Your task to perform on an android device: Search for "usb-c to usb-b" on amazon.com, select the first entry, add it to the cart, then select checkout. Image 0: 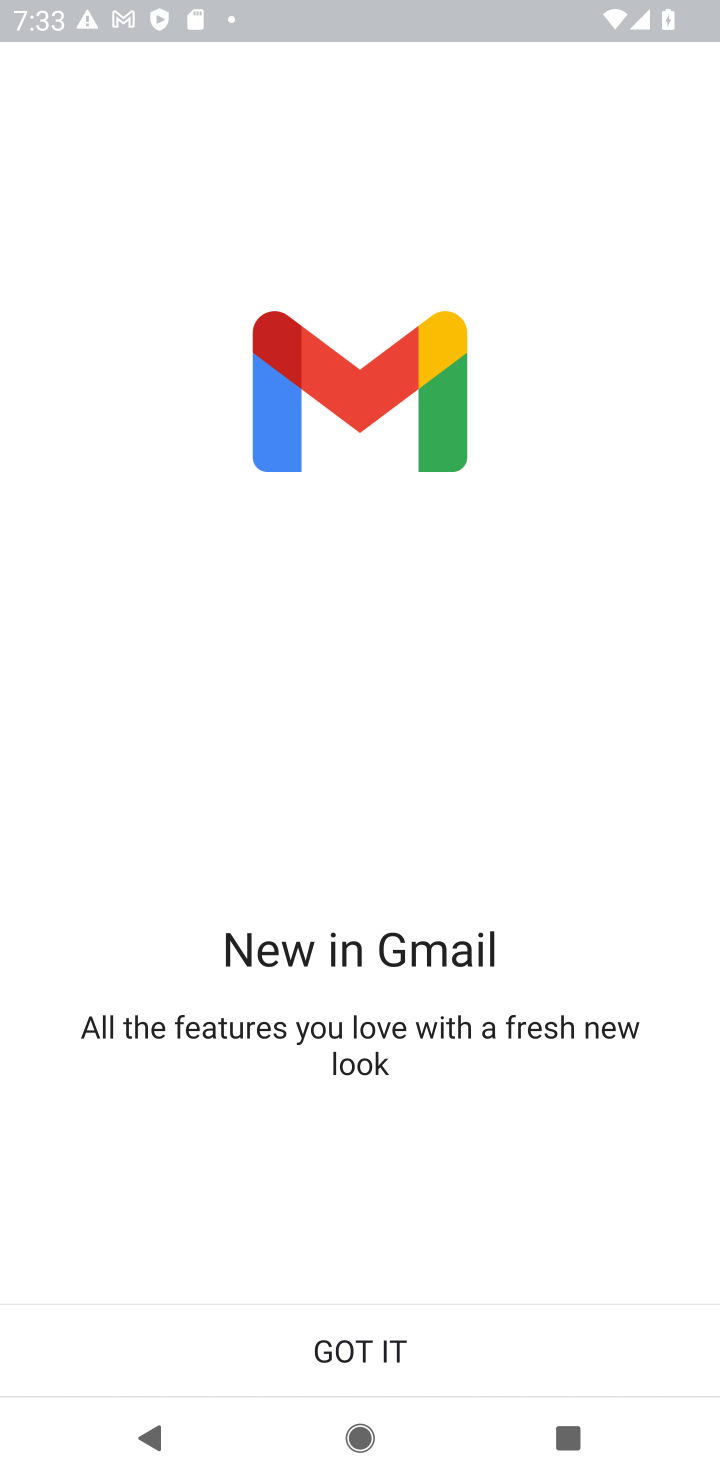
Step 0: press home button
Your task to perform on an android device: Search for "usb-c to usb-b" on amazon.com, select the first entry, add it to the cart, then select checkout. Image 1: 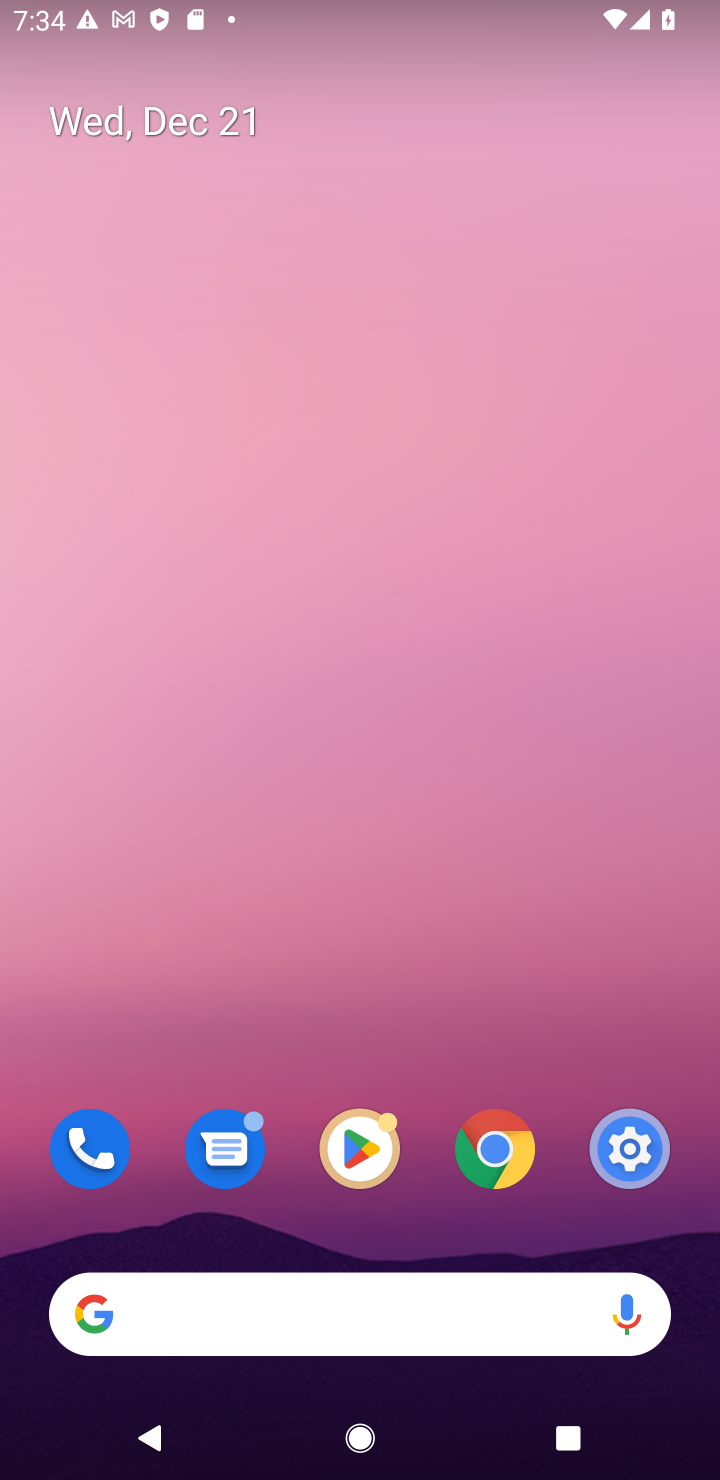
Step 1: click (499, 1155)
Your task to perform on an android device: Search for "usb-c to usb-b" on amazon.com, select the first entry, add it to the cart, then select checkout. Image 2: 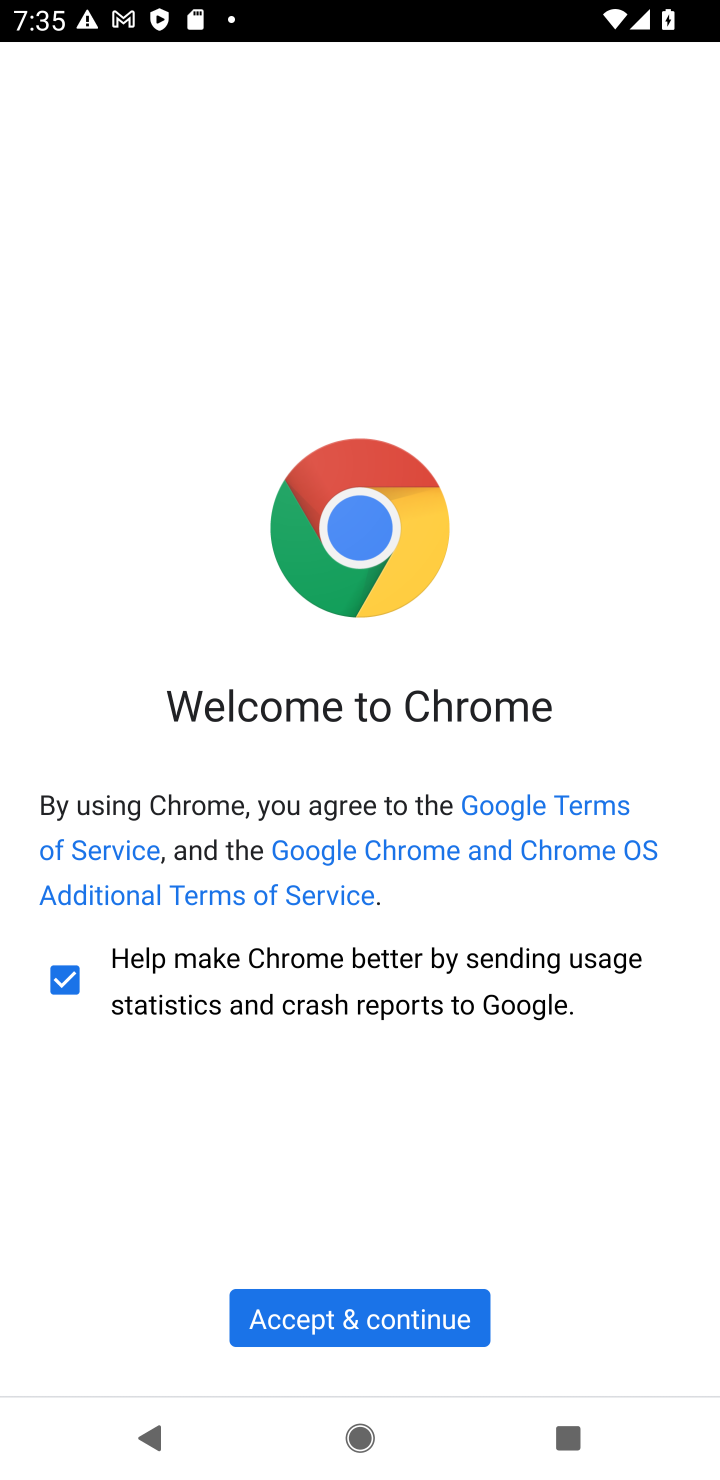
Step 2: click (407, 1324)
Your task to perform on an android device: Search for "usb-c to usb-b" on amazon.com, select the first entry, add it to the cart, then select checkout. Image 3: 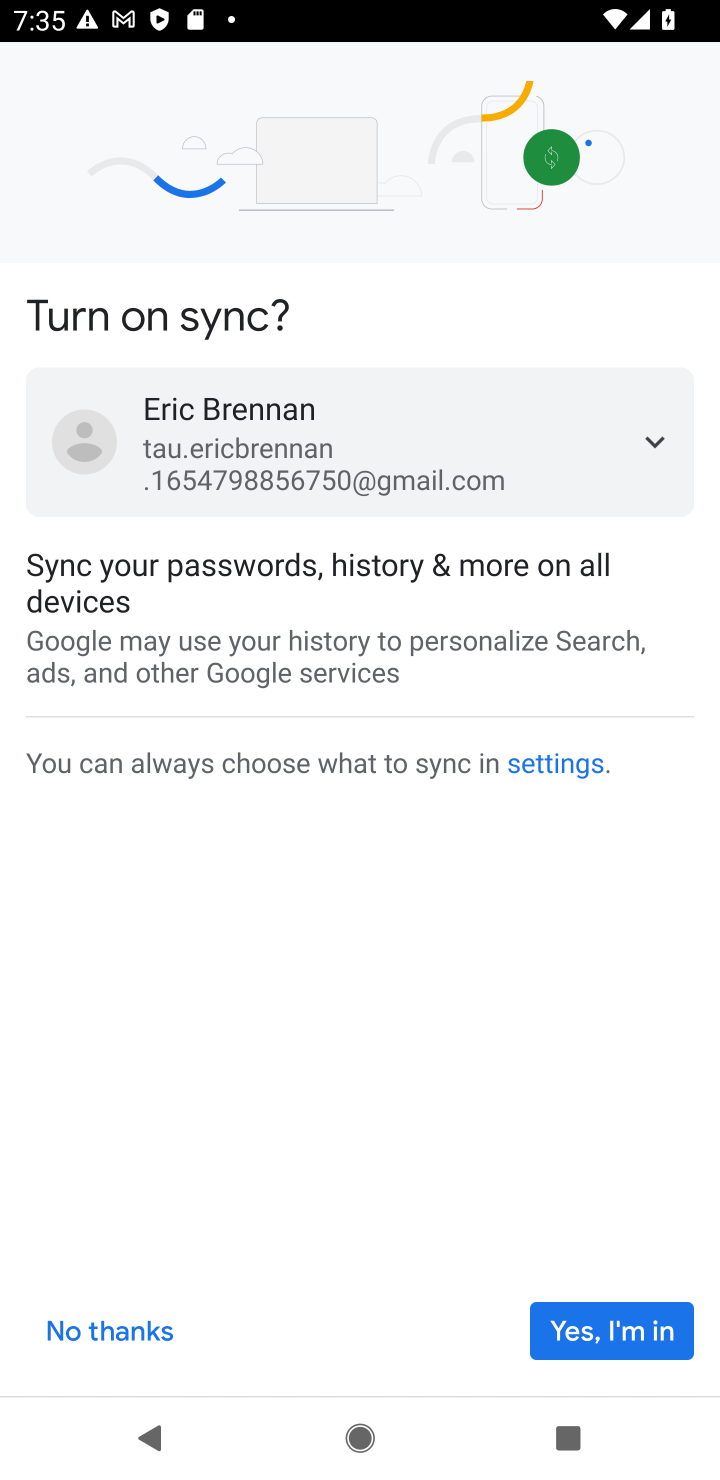
Step 3: click (595, 1337)
Your task to perform on an android device: Search for "usb-c to usb-b" on amazon.com, select the first entry, add it to the cart, then select checkout. Image 4: 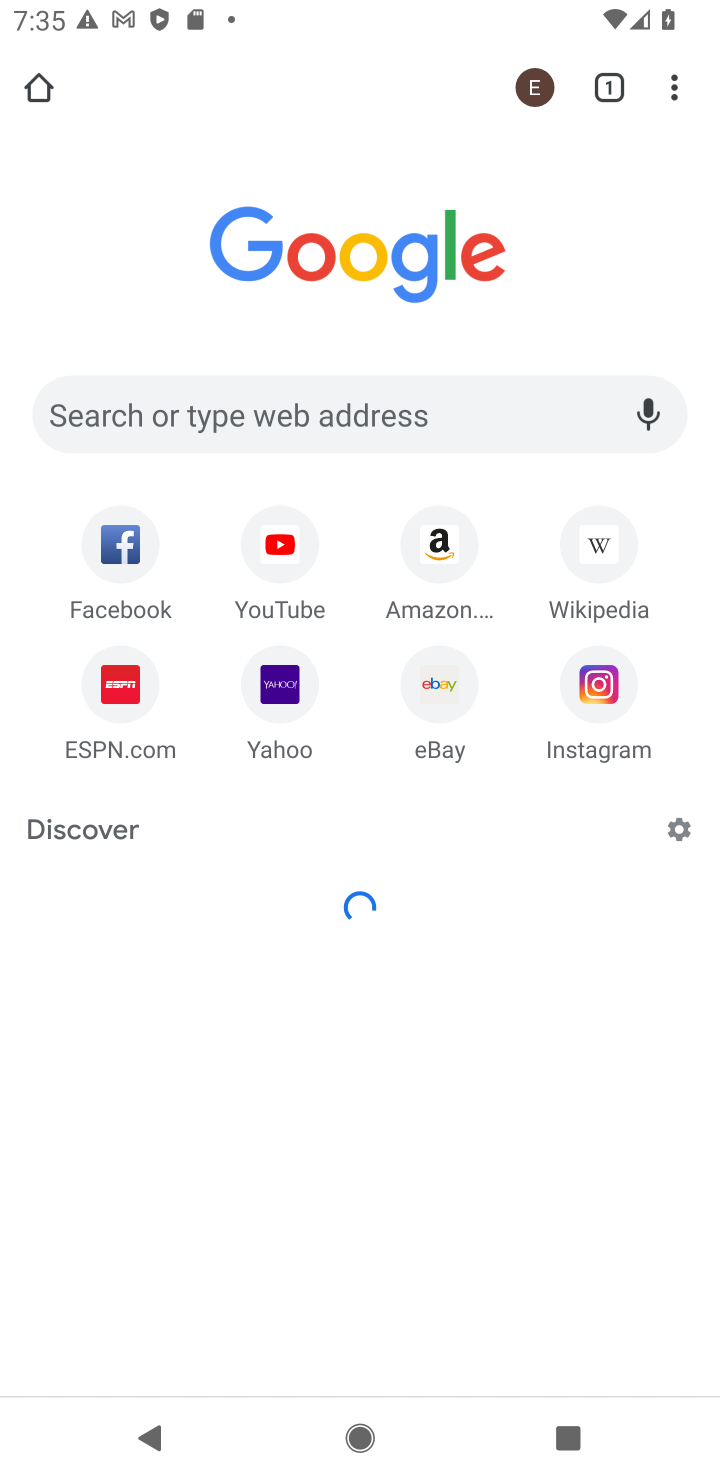
Step 4: click (442, 543)
Your task to perform on an android device: Search for "usb-c to usb-b" on amazon.com, select the first entry, add it to the cart, then select checkout. Image 5: 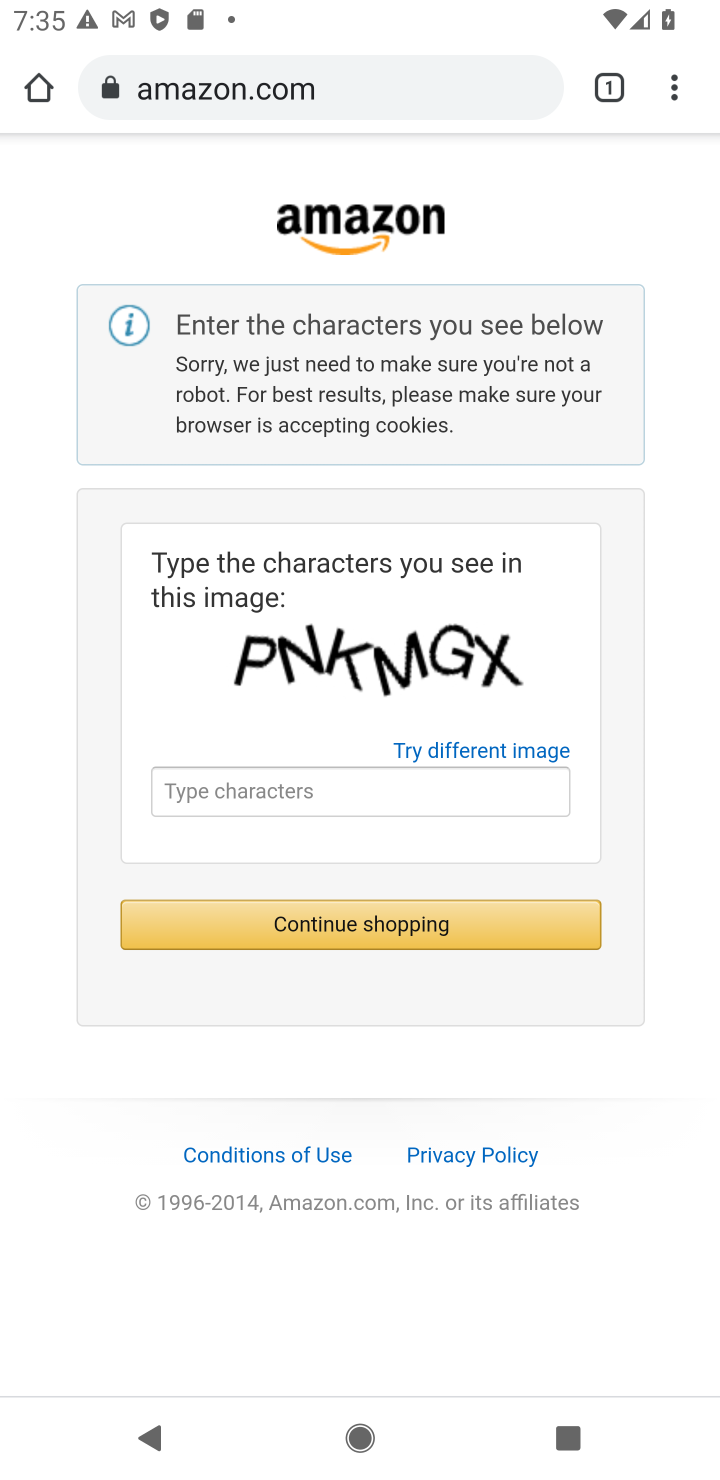
Step 5: click (290, 790)
Your task to perform on an android device: Search for "usb-c to usb-b" on amazon.com, select the first entry, add it to the cart, then select checkout. Image 6: 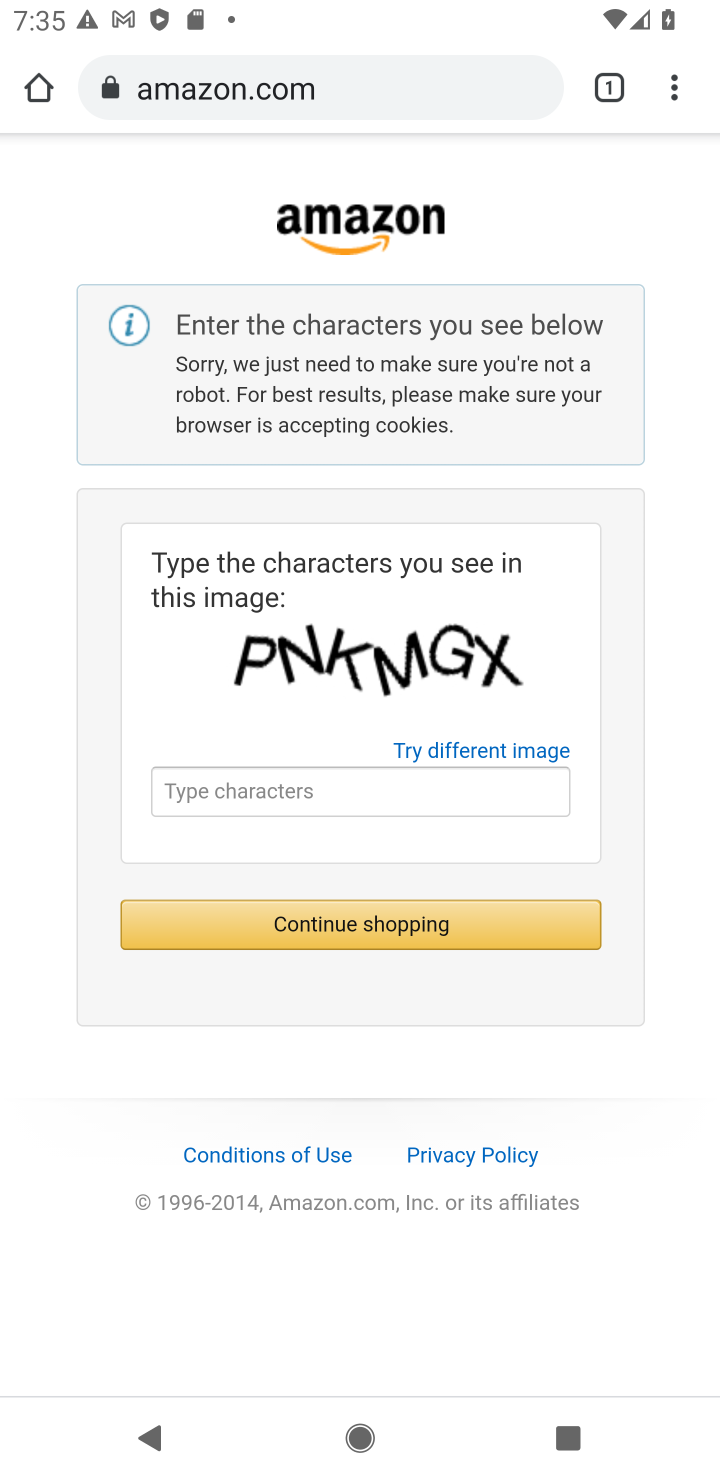
Step 6: click (290, 790)
Your task to perform on an android device: Search for "usb-c to usb-b" on amazon.com, select the first entry, add it to the cart, then select checkout. Image 7: 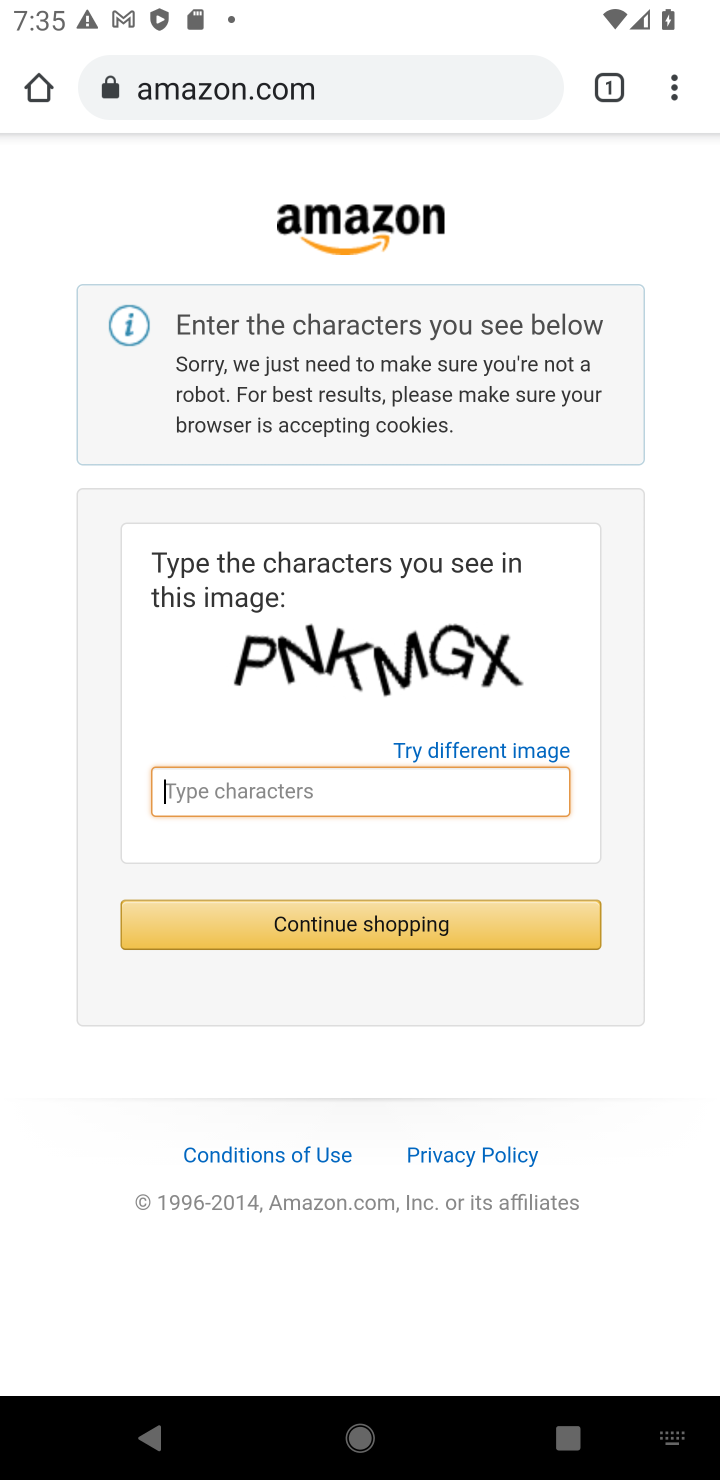
Step 7: type "PNKMGX"
Your task to perform on an android device: Search for "usb-c to usb-b" on amazon.com, select the first entry, add it to the cart, then select checkout. Image 8: 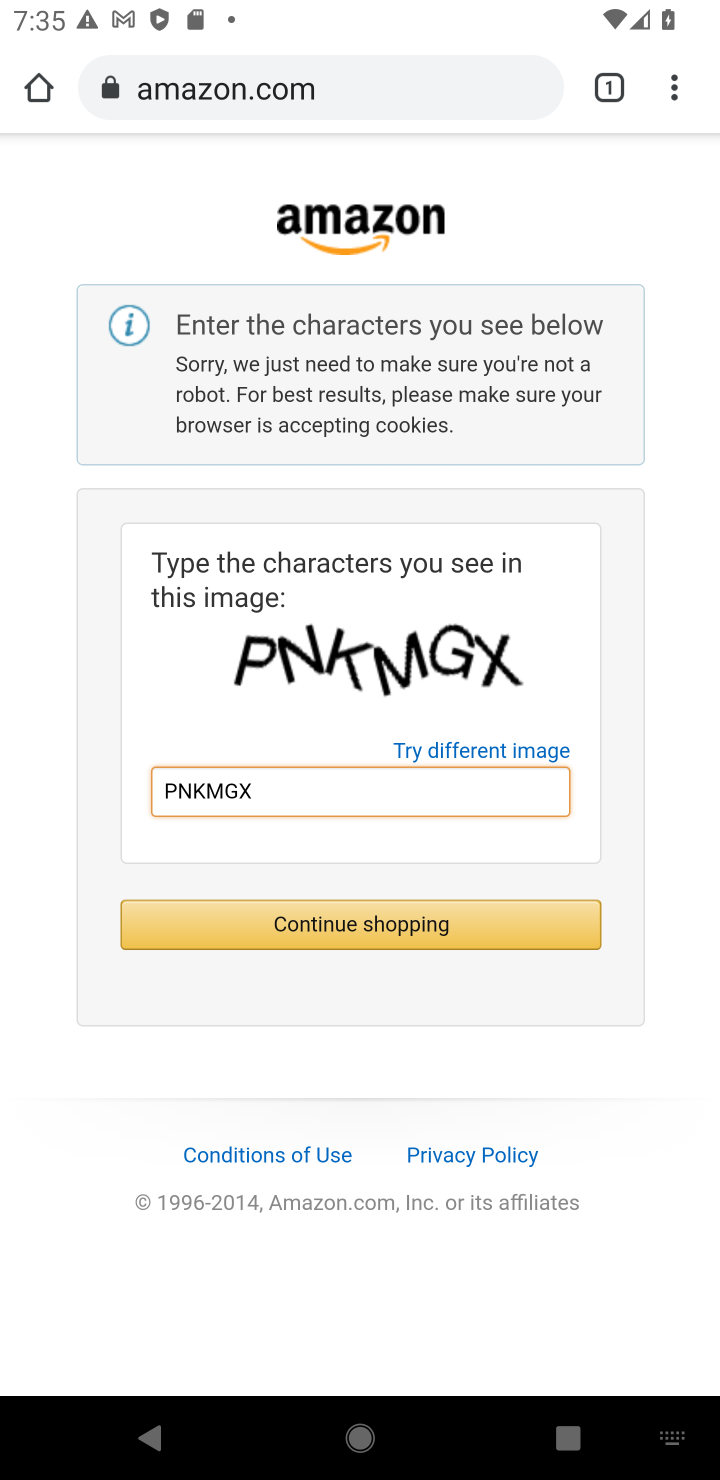
Step 8: click (409, 924)
Your task to perform on an android device: Search for "usb-c to usb-b" on amazon.com, select the first entry, add it to the cart, then select checkout. Image 9: 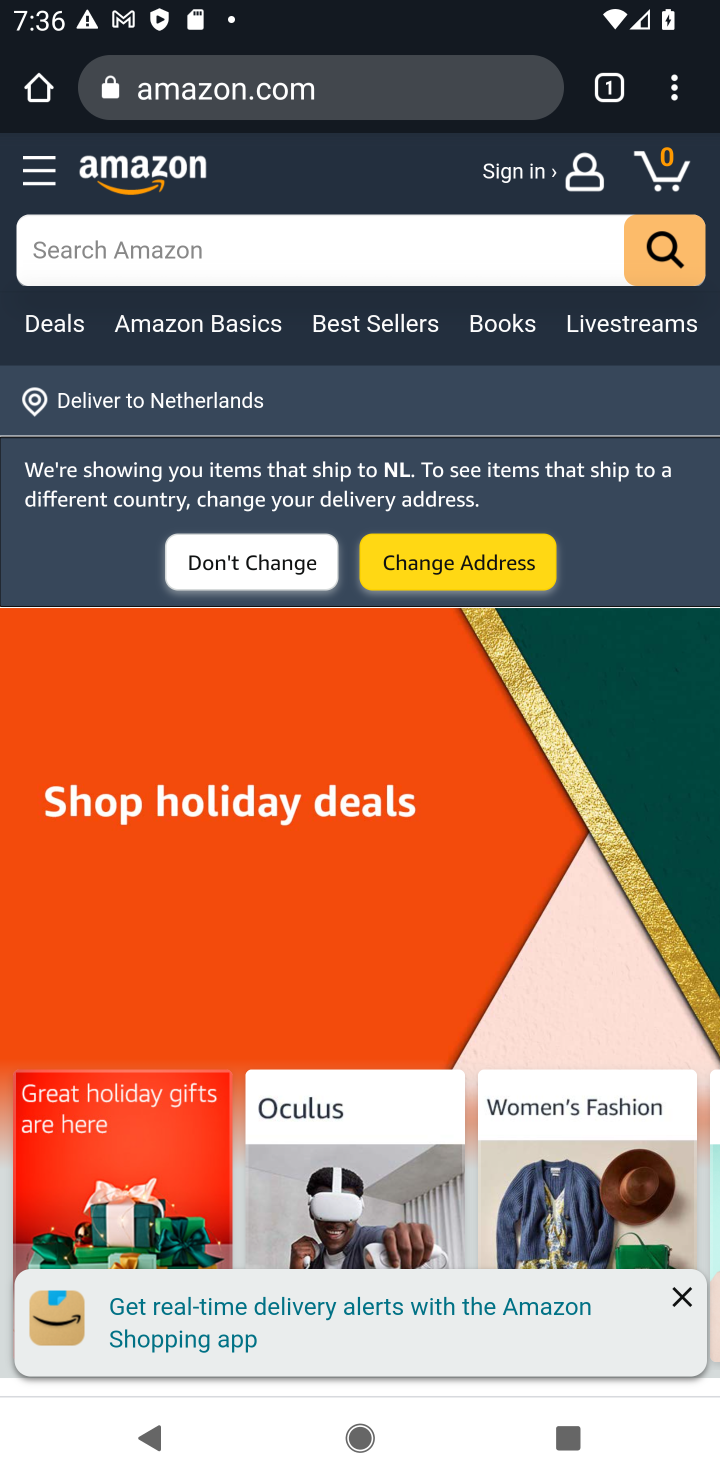
Step 9: click (384, 253)
Your task to perform on an android device: Search for "usb-c to usb-b" on amazon.com, select the first entry, add it to the cart, then select checkout. Image 10: 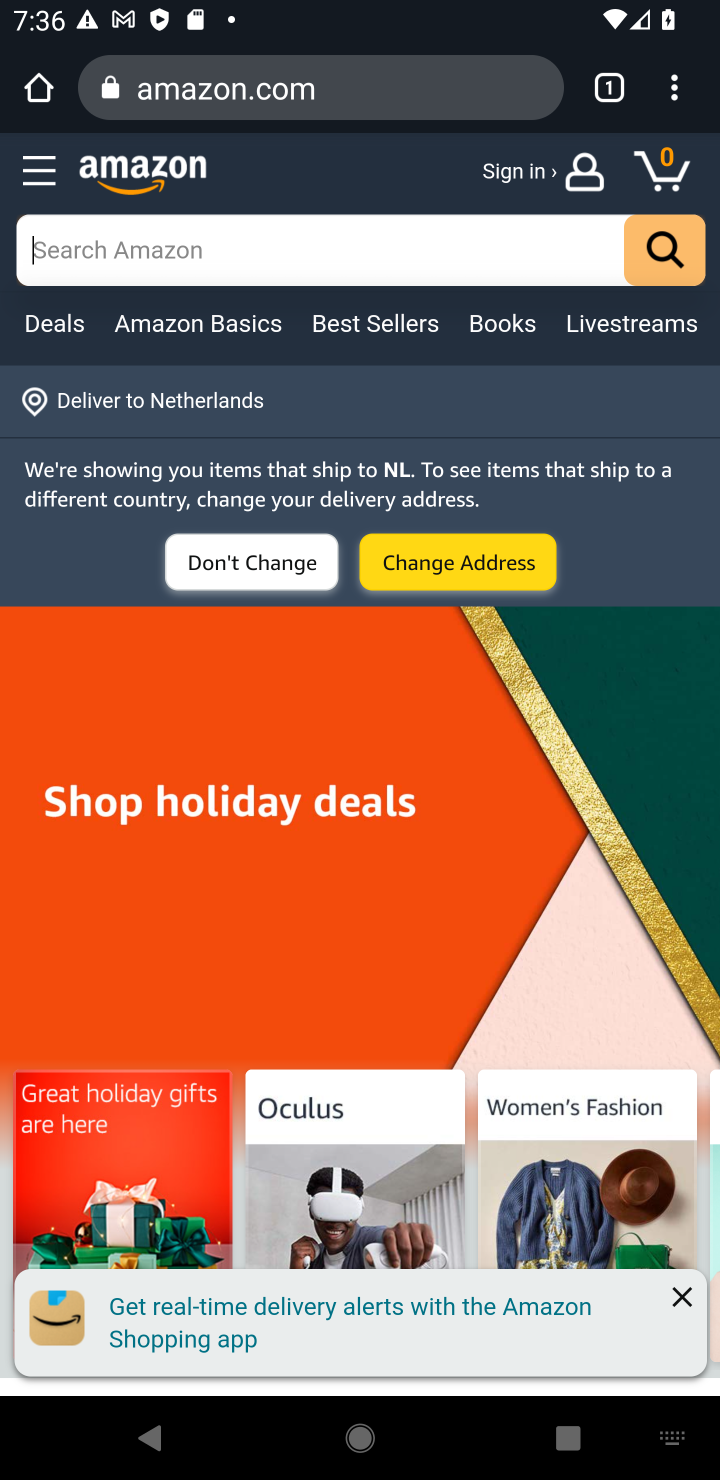
Step 10: type "usb-c to usb-b"
Your task to perform on an android device: Search for "usb-c to usb-b" on amazon.com, select the first entry, add it to the cart, then select checkout. Image 11: 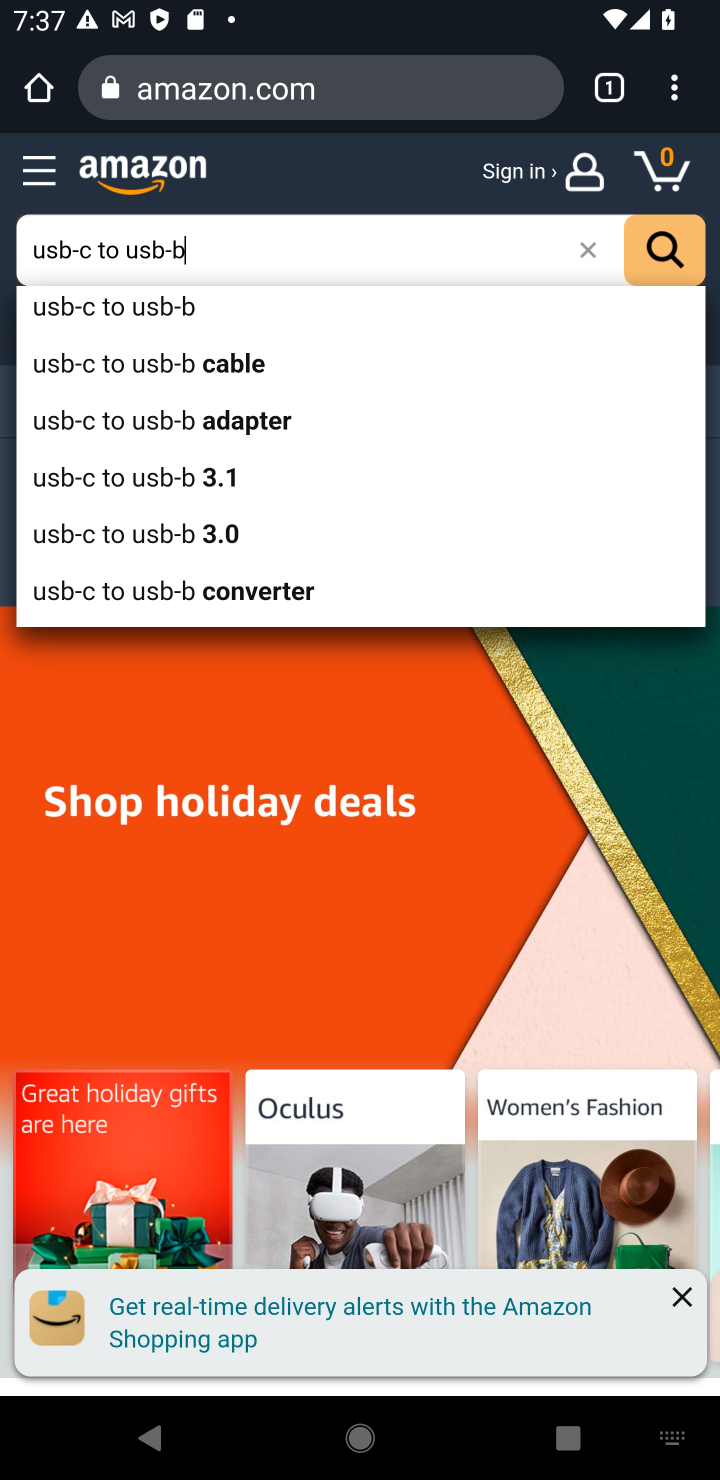
Step 11: click (163, 308)
Your task to perform on an android device: Search for "usb-c to usb-b" on amazon.com, select the first entry, add it to the cart, then select checkout. Image 12: 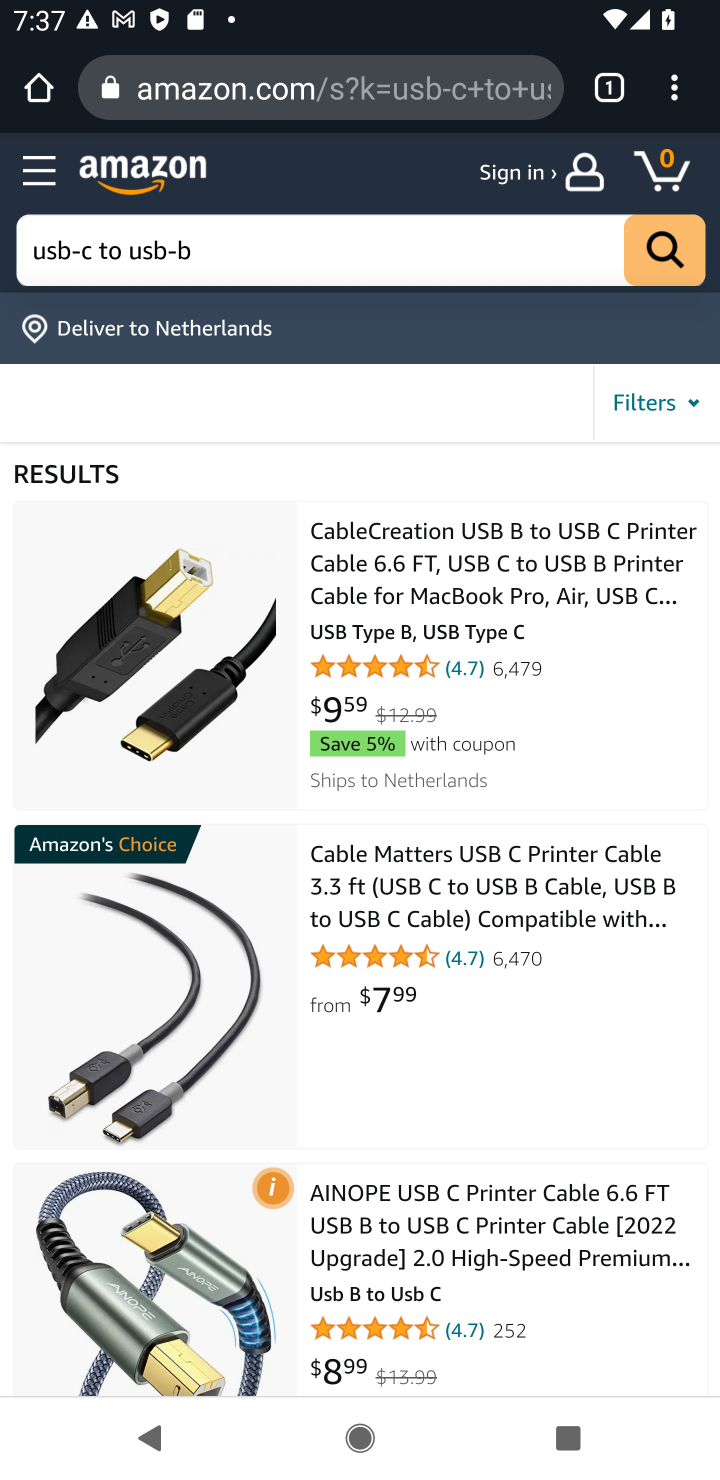
Step 12: click (514, 612)
Your task to perform on an android device: Search for "usb-c to usb-b" on amazon.com, select the first entry, add it to the cart, then select checkout. Image 13: 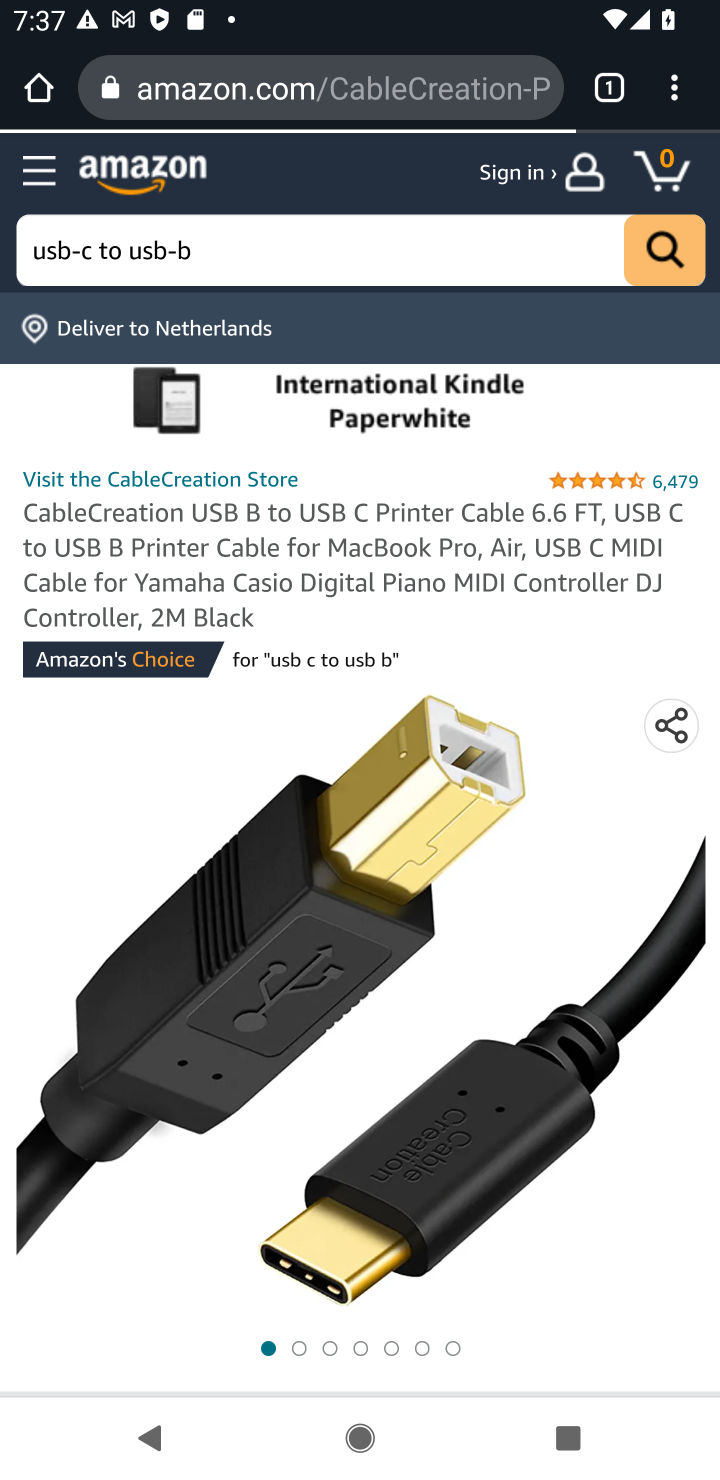
Step 13: drag from (482, 1205) to (393, 276)
Your task to perform on an android device: Search for "usb-c to usb-b" on amazon.com, select the first entry, add it to the cart, then select checkout. Image 14: 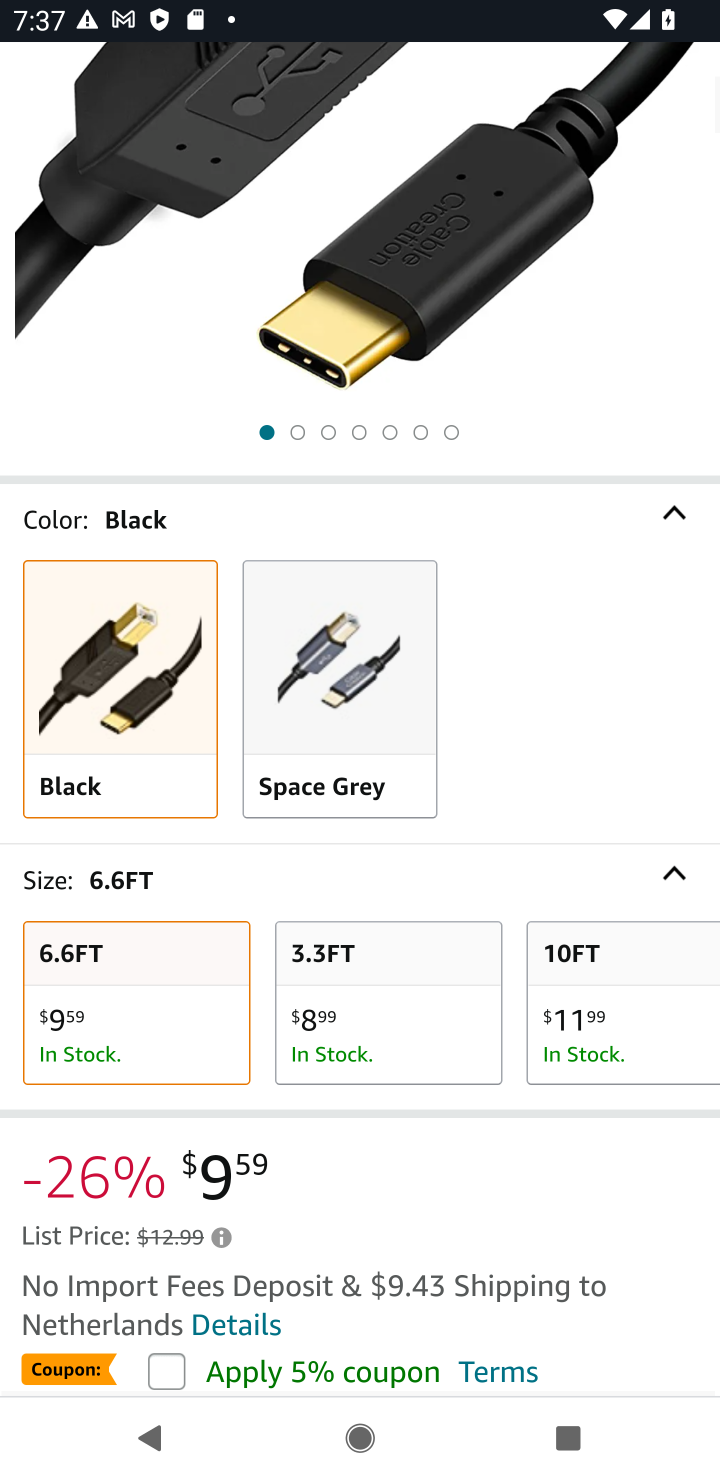
Step 14: drag from (503, 1267) to (481, 328)
Your task to perform on an android device: Search for "usb-c to usb-b" on amazon.com, select the first entry, add it to the cart, then select checkout. Image 15: 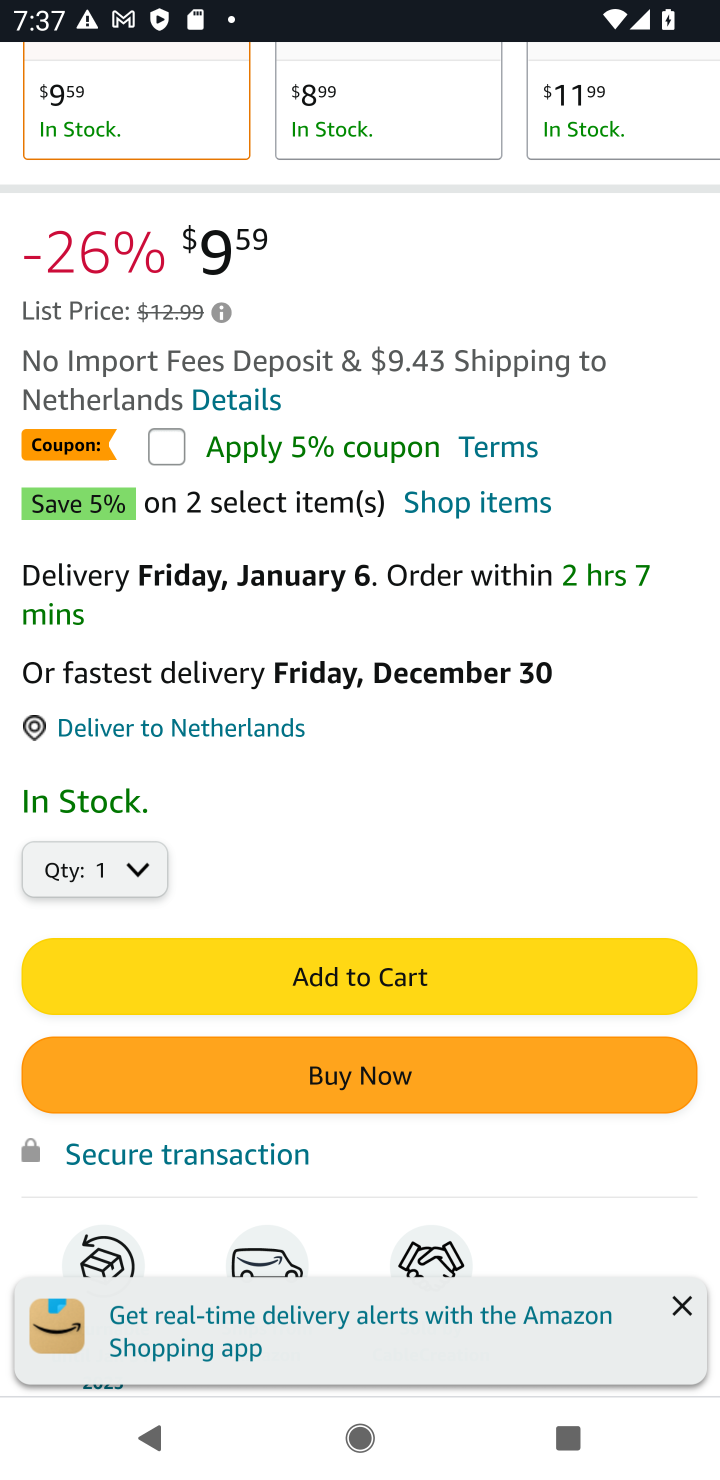
Step 15: click (381, 980)
Your task to perform on an android device: Search for "usb-c to usb-b" on amazon.com, select the first entry, add it to the cart, then select checkout. Image 16: 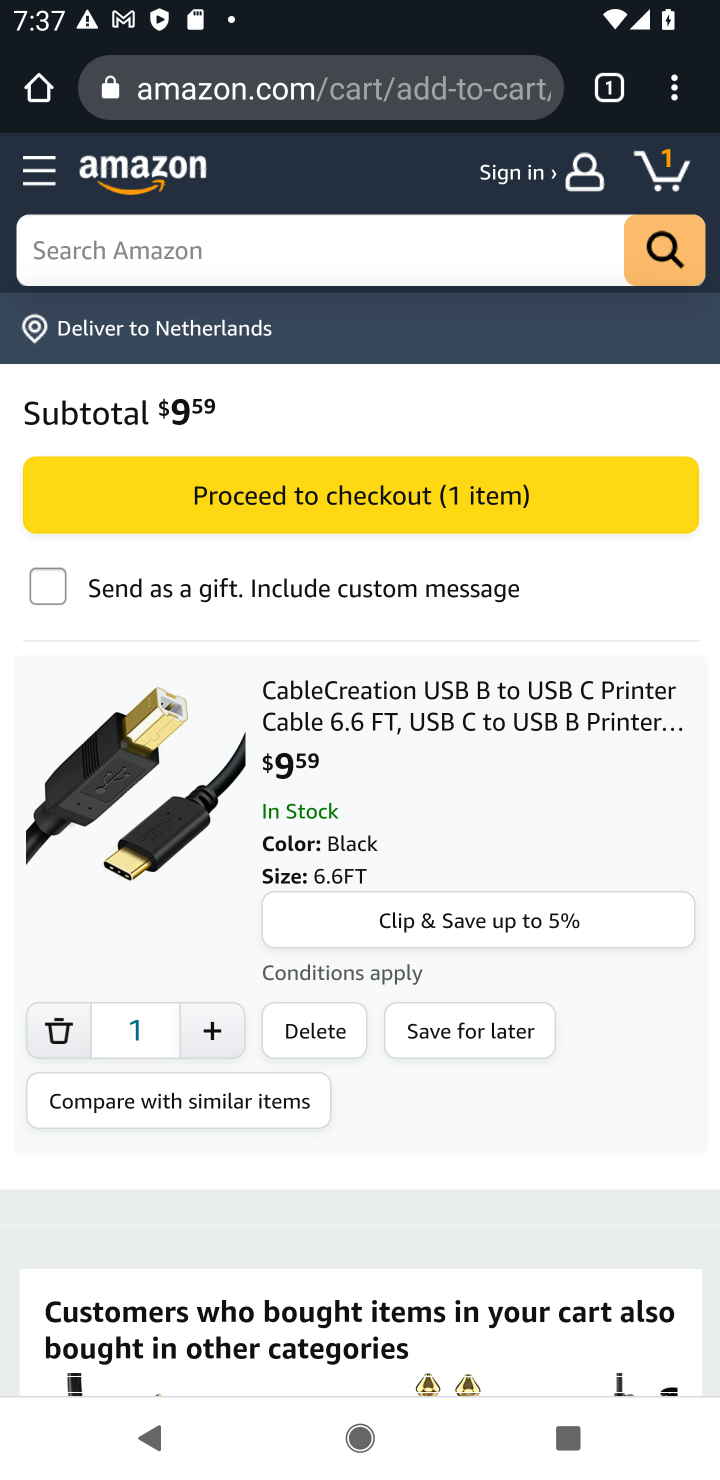
Step 16: task complete